Your task to perform on an android device: find photos in the google photos app Image 0: 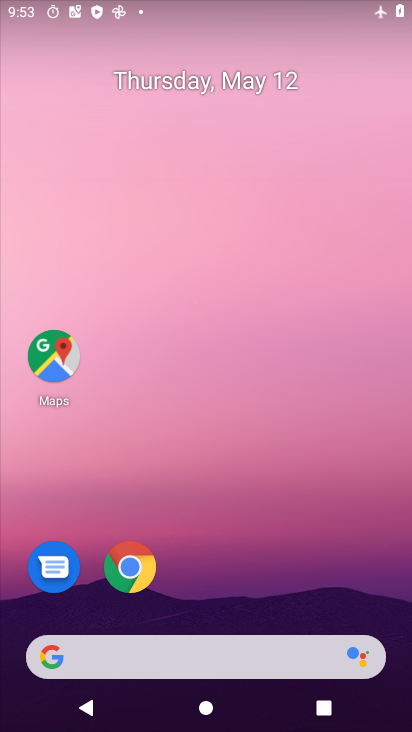
Step 0: drag from (198, 630) to (245, 194)
Your task to perform on an android device: find photos in the google photos app Image 1: 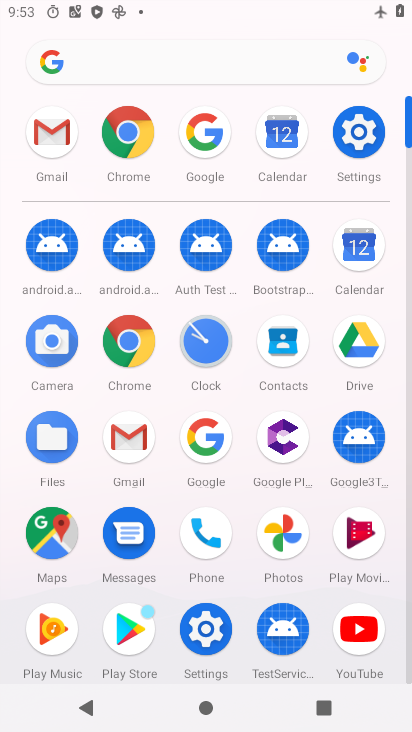
Step 1: drag from (268, 511) to (284, 349)
Your task to perform on an android device: find photos in the google photos app Image 2: 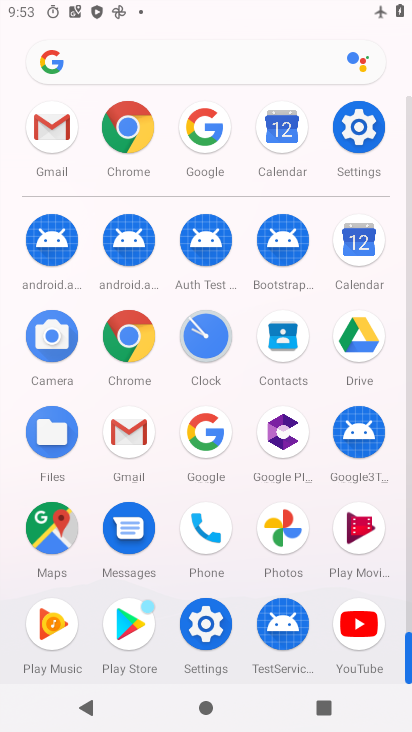
Step 2: click (291, 531)
Your task to perform on an android device: find photos in the google photos app Image 3: 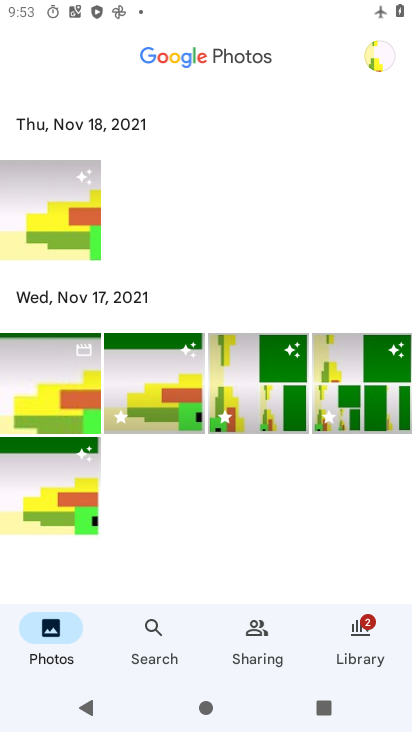
Step 3: task complete